Your task to perform on an android device: uninstall "DoorDash - Food Delivery" Image 0: 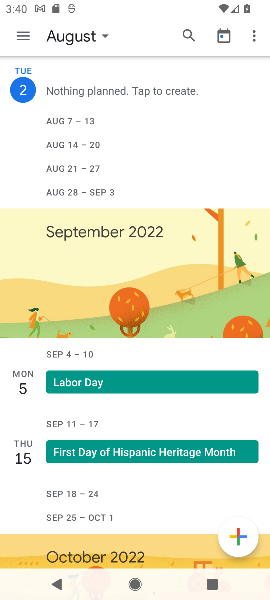
Step 0: press home button
Your task to perform on an android device: uninstall "DoorDash - Food Delivery" Image 1: 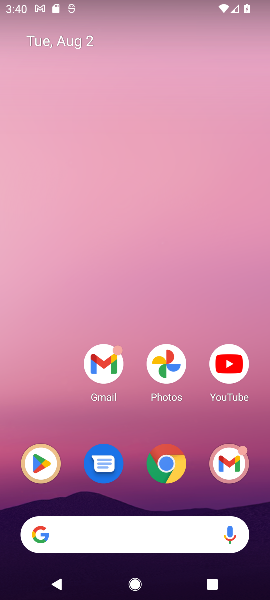
Step 1: click (40, 463)
Your task to perform on an android device: uninstall "DoorDash - Food Delivery" Image 2: 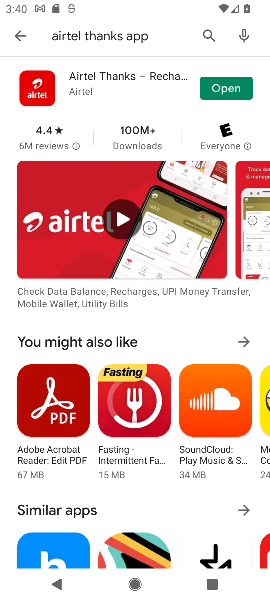
Step 2: click (206, 32)
Your task to perform on an android device: uninstall "DoorDash - Food Delivery" Image 3: 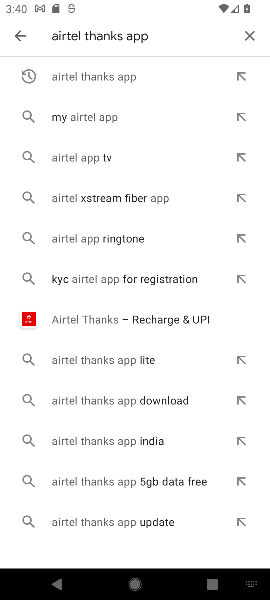
Step 3: type "DoorDash - Food Delivery"
Your task to perform on an android device: uninstall "DoorDash - Food Delivery" Image 4: 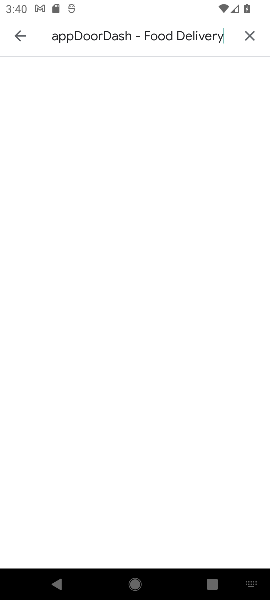
Step 4: click (248, 31)
Your task to perform on an android device: uninstall "DoorDash - Food Delivery" Image 5: 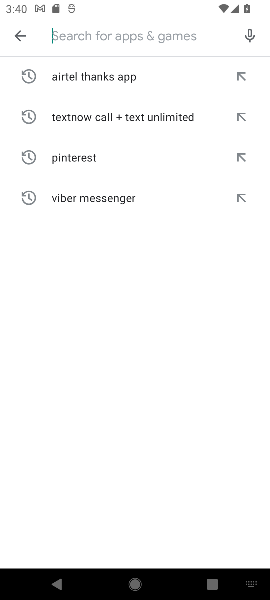
Step 5: type "DoorDash - Food Delivery"
Your task to perform on an android device: uninstall "DoorDash - Food Delivery" Image 6: 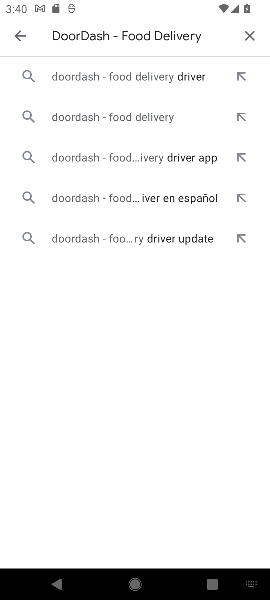
Step 6: click (159, 77)
Your task to perform on an android device: uninstall "DoorDash - Food Delivery" Image 7: 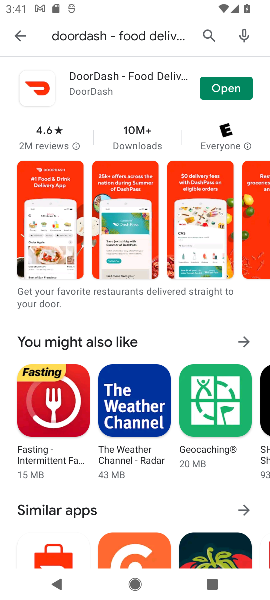
Step 7: click (61, 79)
Your task to perform on an android device: uninstall "DoorDash - Food Delivery" Image 8: 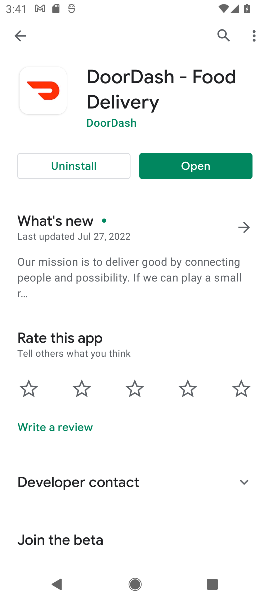
Step 8: click (90, 167)
Your task to perform on an android device: uninstall "DoorDash - Food Delivery" Image 9: 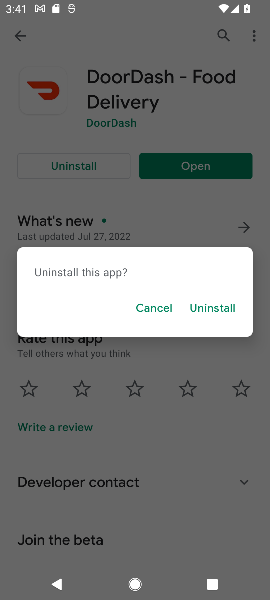
Step 9: click (207, 305)
Your task to perform on an android device: uninstall "DoorDash - Food Delivery" Image 10: 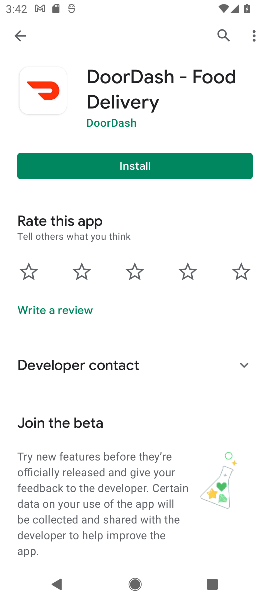
Step 10: task complete